Your task to perform on an android device: open app "ColorNote Notepad Notes" (install if not already installed), go to login, and select forgot password Image 0: 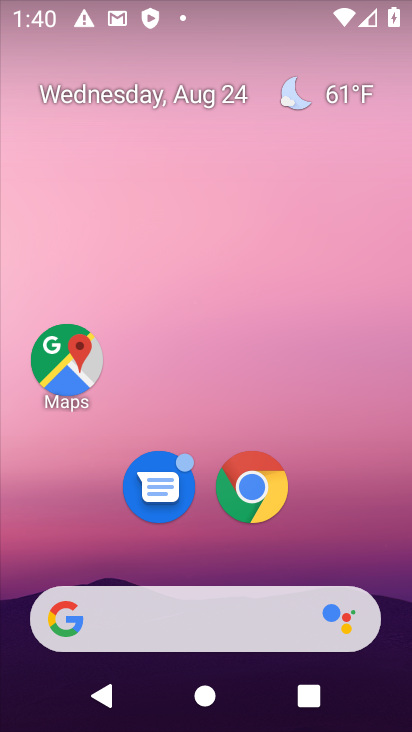
Step 0: drag from (265, 618) to (283, 46)
Your task to perform on an android device: open app "ColorNote Notepad Notes" (install if not already installed), go to login, and select forgot password Image 1: 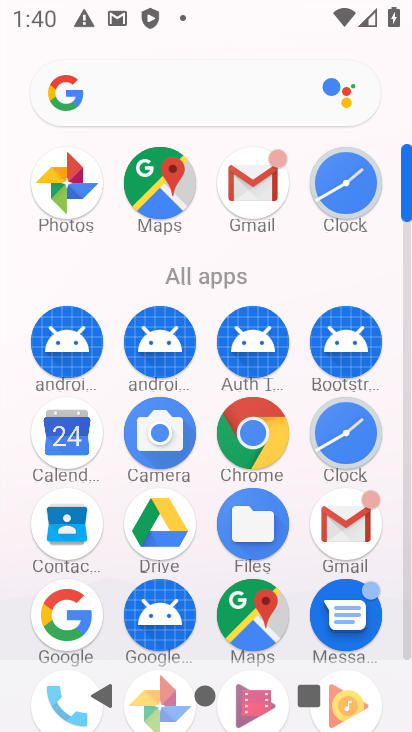
Step 1: drag from (317, 281) to (353, 9)
Your task to perform on an android device: open app "ColorNote Notepad Notes" (install if not already installed), go to login, and select forgot password Image 2: 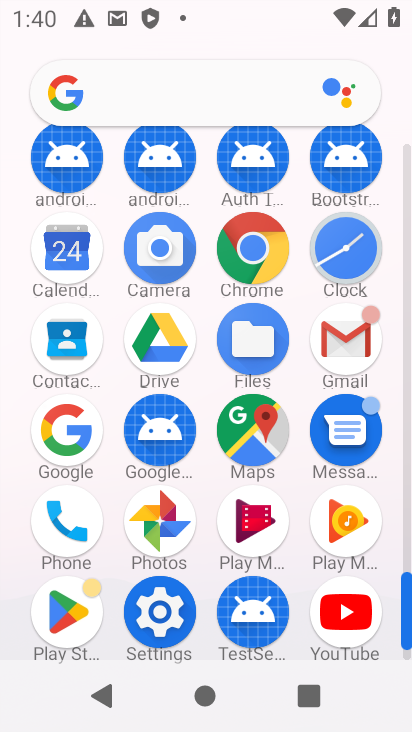
Step 2: click (74, 605)
Your task to perform on an android device: open app "ColorNote Notepad Notes" (install if not already installed), go to login, and select forgot password Image 3: 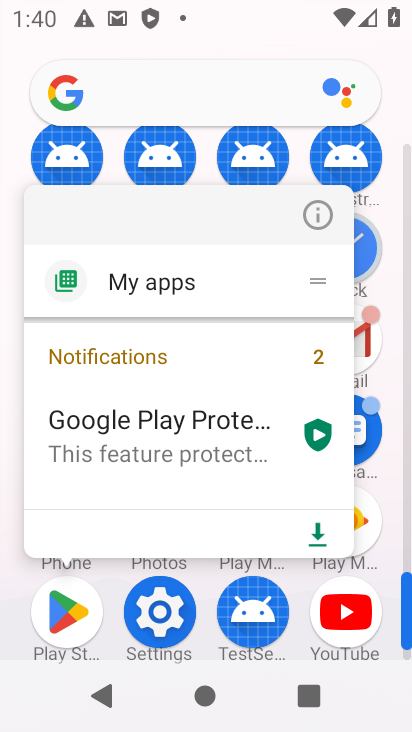
Step 3: click (74, 605)
Your task to perform on an android device: open app "ColorNote Notepad Notes" (install if not already installed), go to login, and select forgot password Image 4: 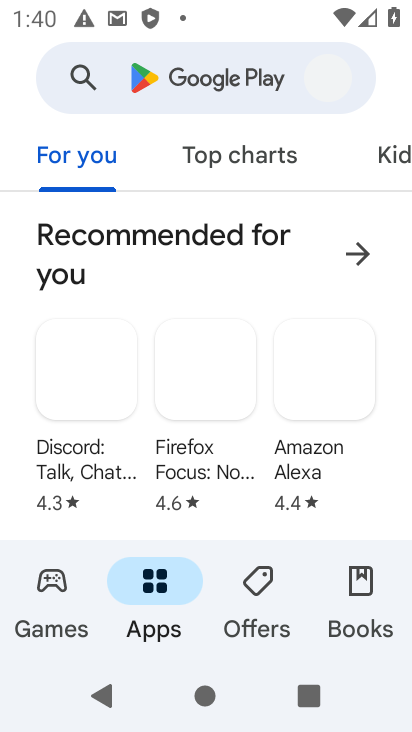
Step 4: click (210, 59)
Your task to perform on an android device: open app "ColorNote Notepad Notes" (install if not already installed), go to login, and select forgot password Image 5: 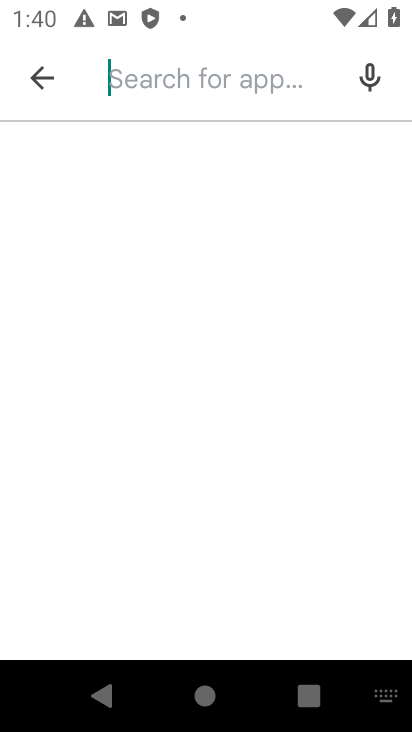
Step 5: type "ColorNote Notepad Notes"
Your task to perform on an android device: open app "ColorNote Notepad Notes" (install if not already installed), go to login, and select forgot password Image 6: 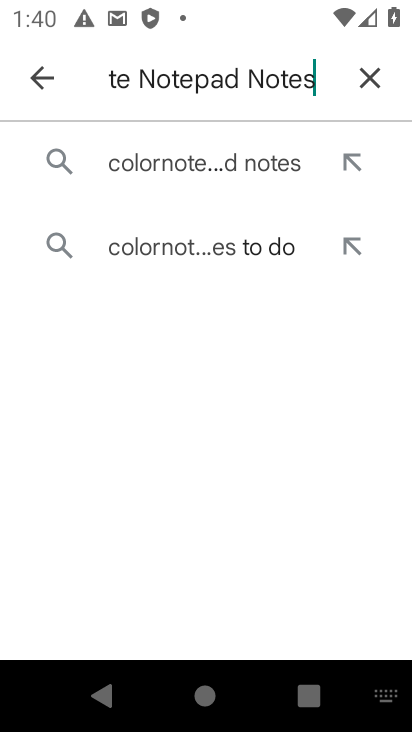
Step 6: click (136, 156)
Your task to perform on an android device: open app "ColorNote Notepad Notes" (install if not already installed), go to login, and select forgot password Image 7: 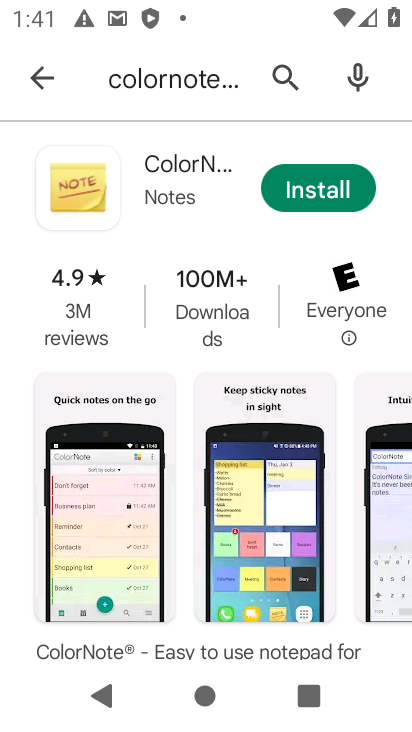
Step 7: click (301, 184)
Your task to perform on an android device: open app "ColorNote Notepad Notes" (install if not already installed), go to login, and select forgot password Image 8: 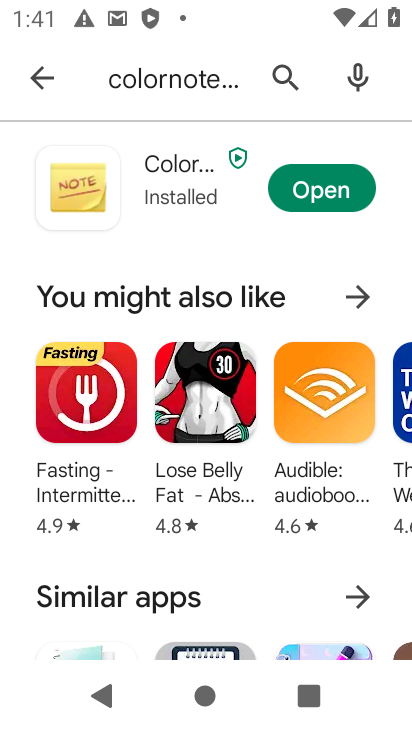
Step 8: click (304, 186)
Your task to perform on an android device: open app "ColorNote Notepad Notes" (install if not already installed), go to login, and select forgot password Image 9: 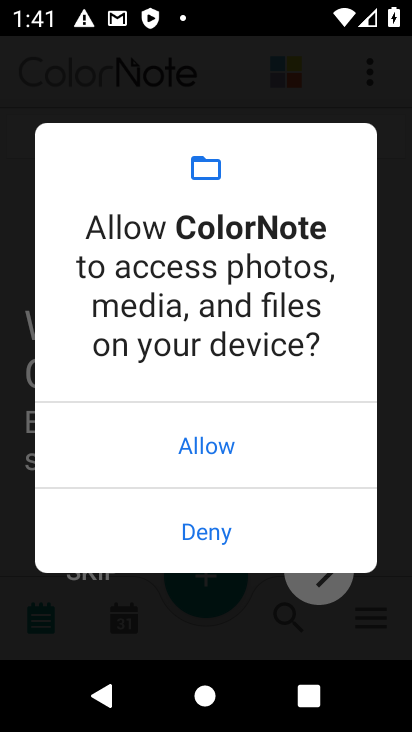
Step 9: click (192, 445)
Your task to perform on an android device: open app "ColorNote Notepad Notes" (install if not already installed), go to login, and select forgot password Image 10: 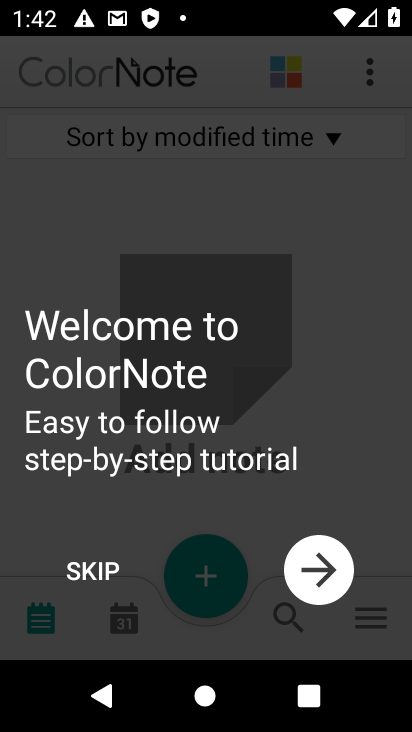
Step 10: click (94, 578)
Your task to perform on an android device: open app "ColorNote Notepad Notes" (install if not already installed), go to login, and select forgot password Image 11: 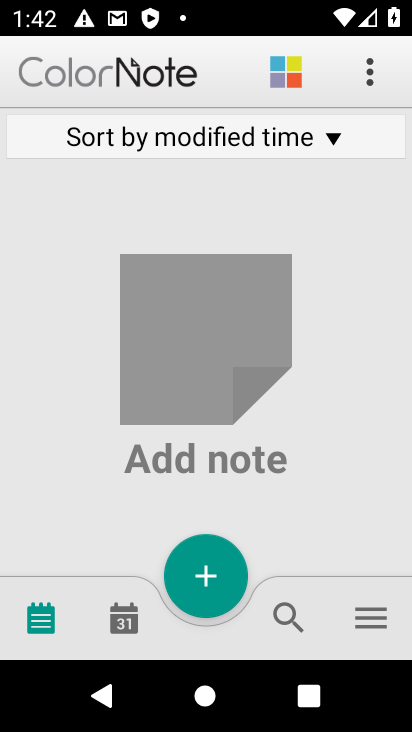
Step 11: click (372, 77)
Your task to perform on an android device: open app "ColorNote Notepad Notes" (install if not already installed), go to login, and select forgot password Image 12: 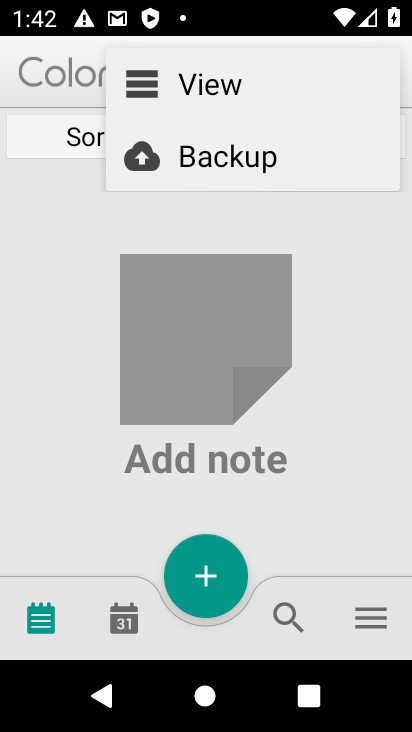
Step 12: task complete